Your task to perform on an android device: empty trash in google photos Image 0: 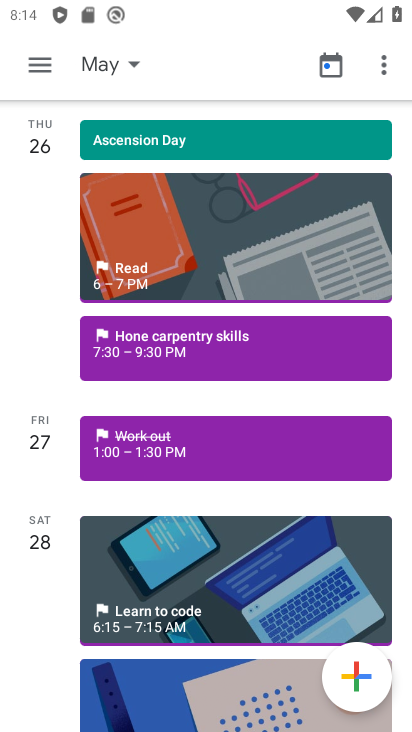
Step 0: press home button
Your task to perform on an android device: empty trash in google photos Image 1: 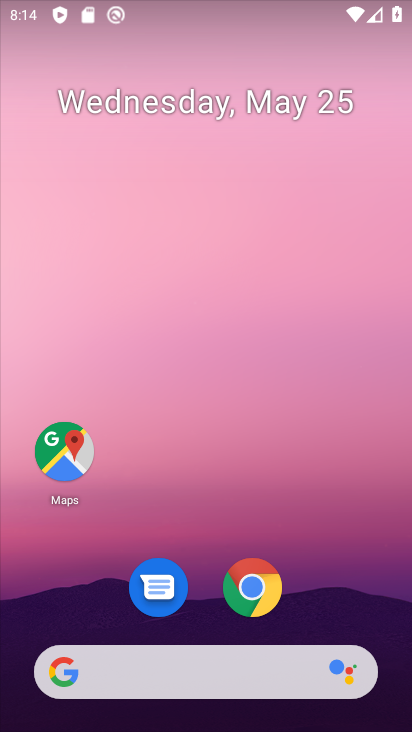
Step 1: drag from (266, 512) to (274, 54)
Your task to perform on an android device: empty trash in google photos Image 2: 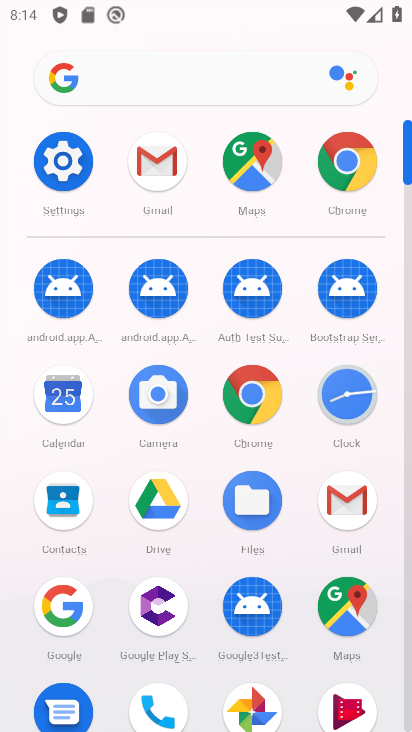
Step 2: drag from (203, 224) to (225, 16)
Your task to perform on an android device: empty trash in google photos Image 3: 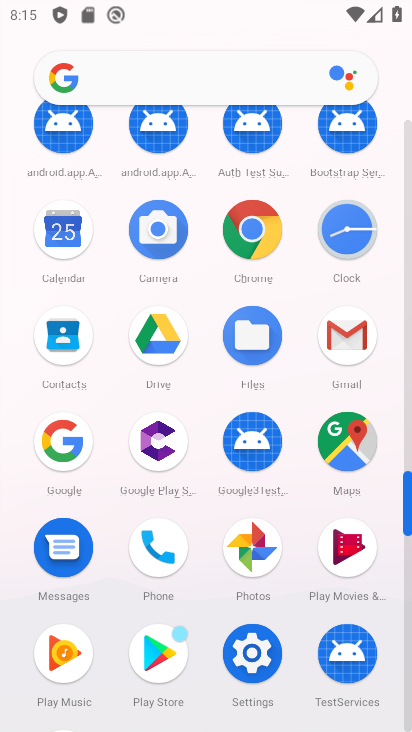
Step 3: click (251, 547)
Your task to perform on an android device: empty trash in google photos Image 4: 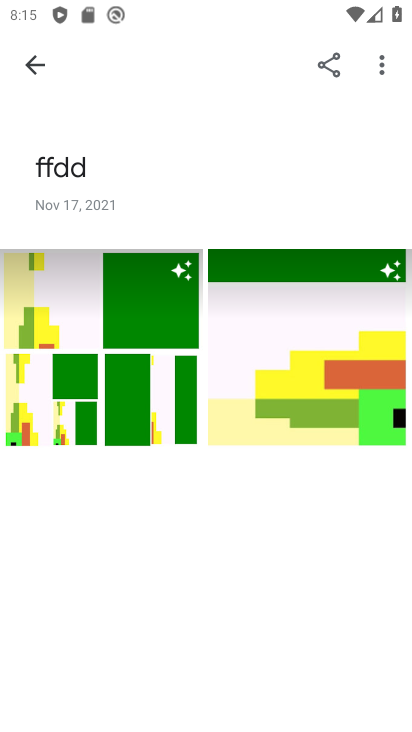
Step 4: click (37, 68)
Your task to perform on an android device: empty trash in google photos Image 5: 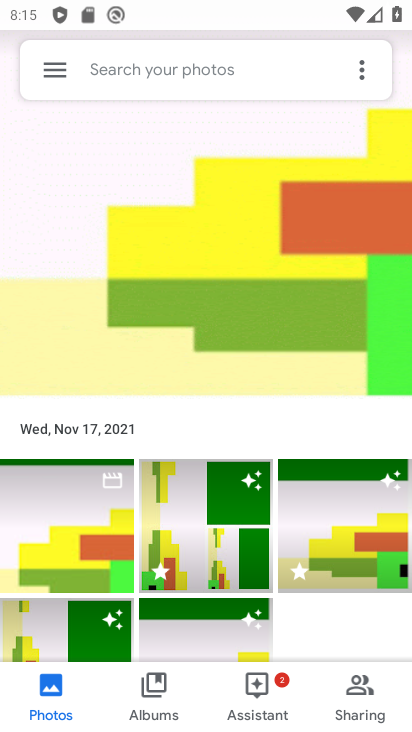
Step 5: click (42, 68)
Your task to perform on an android device: empty trash in google photos Image 6: 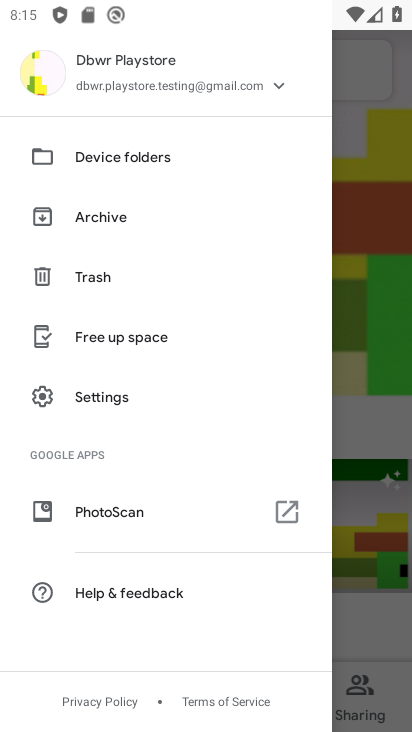
Step 6: click (94, 275)
Your task to perform on an android device: empty trash in google photos Image 7: 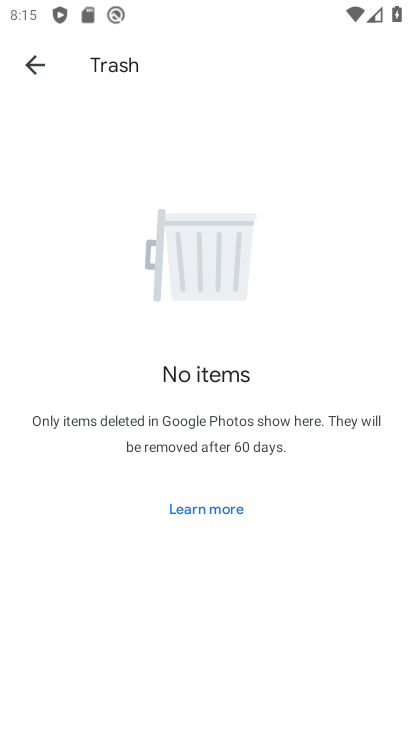
Step 7: task complete